Your task to perform on an android device: Open Google Chrome and open the bookmarks view Image 0: 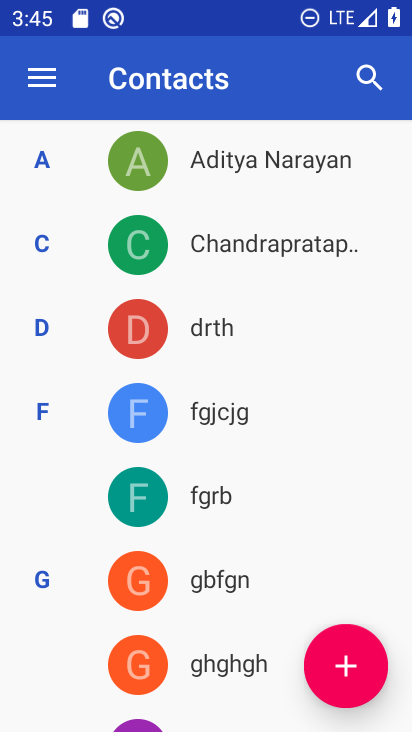
Step 0: press home button
Your task to perform on an android device: Open Google Chrome and open the bookmarks view Image 1: 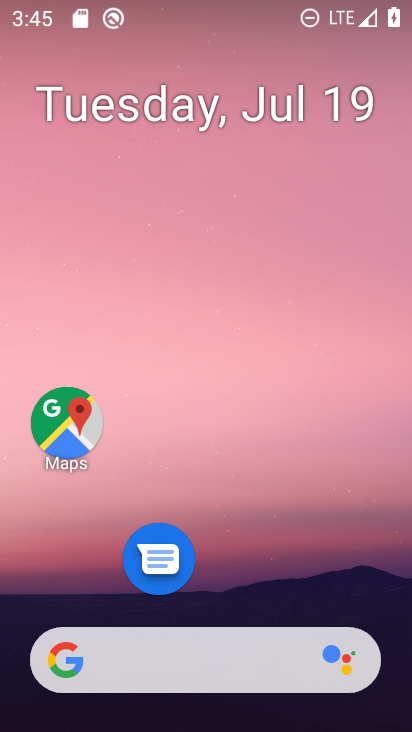
Step 1: drag from (301, 603) to (271, 0)
Your task to perform on an android device: Open Google Chrome and open the bookmarks view Image 2: 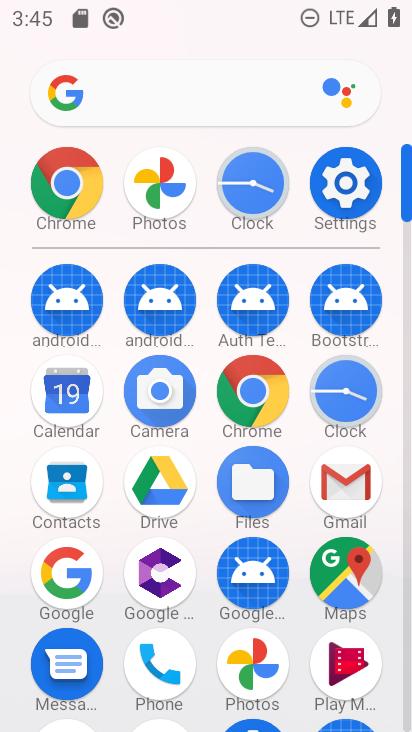
Step 2: click (252, 414)
Your task to perform on an android device: Open Google Chrome and open the bookmarks view Image 3: 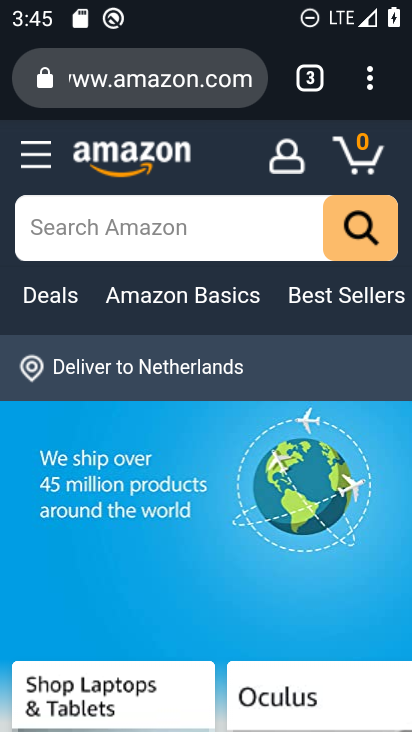
Step 3: click (373, 79)
Your task to perform on an android device: Open Google Chrome and open the bookmarks view Image 4: 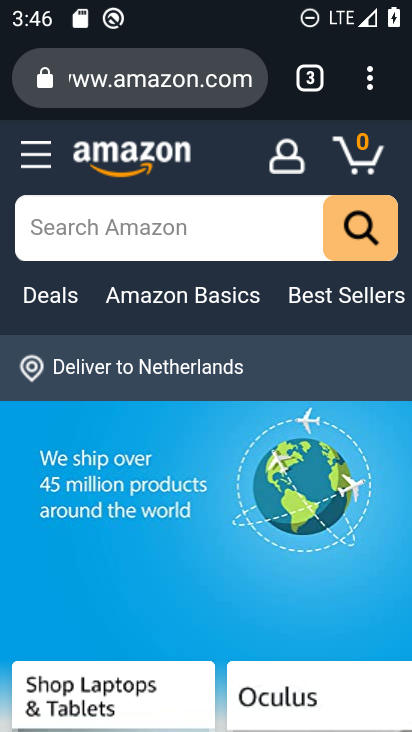
Step 4: click (376, 93)
Your task to perform on an android device: Open Google Chrome and open the bookmarks view Image 5: 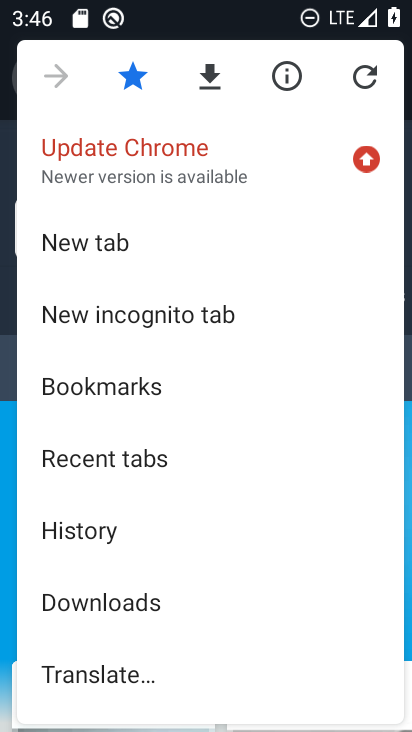
Step 5: drag from (179, 518) to (245, 277)
Your task to perform on an android device: Open Google Chrome and open the bookmarks view Image 6: 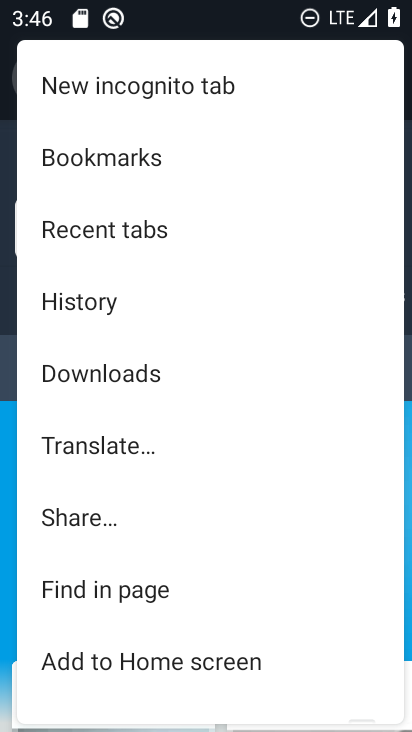
Step 6: click (139, 171)
Your task to perform on an android device: Open Google Chrome and open the bookmarks view Image 7: 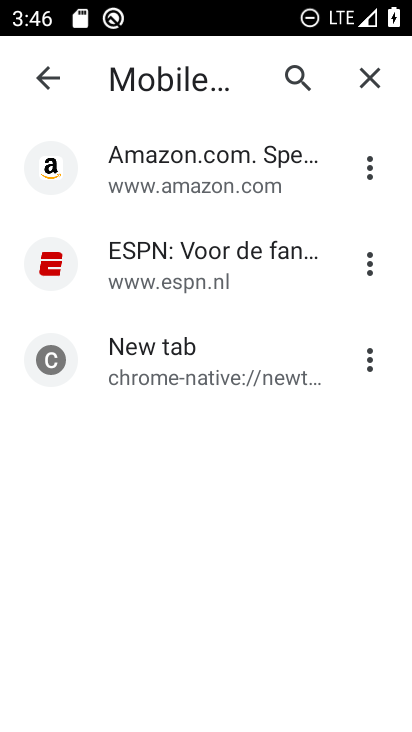
Step 7: task complete